Your task to perform on an android device: set the timer Image 0: 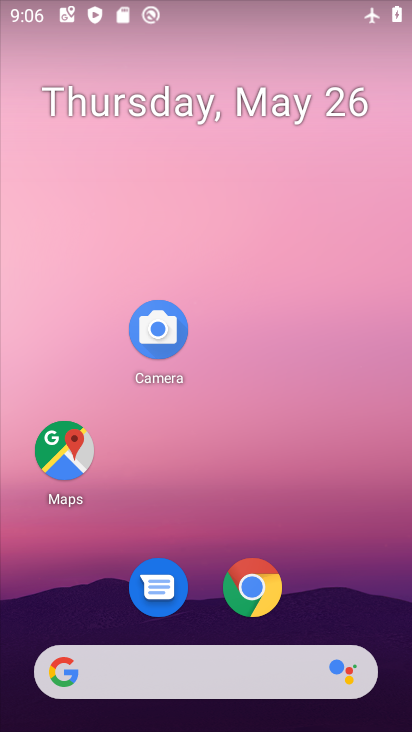
Step 0: drag from (195, 622) to (197, 230)
Your task to perform on an android device: set the timer Image 1: 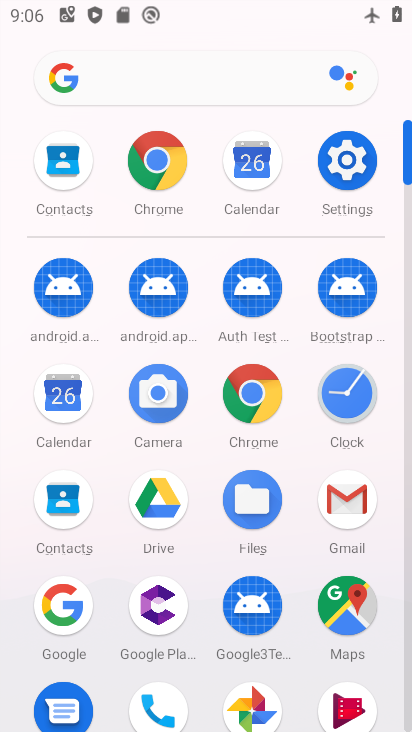
Step 1: click (340, 403)
Your task to perform on an android device: set the timer Image 2: 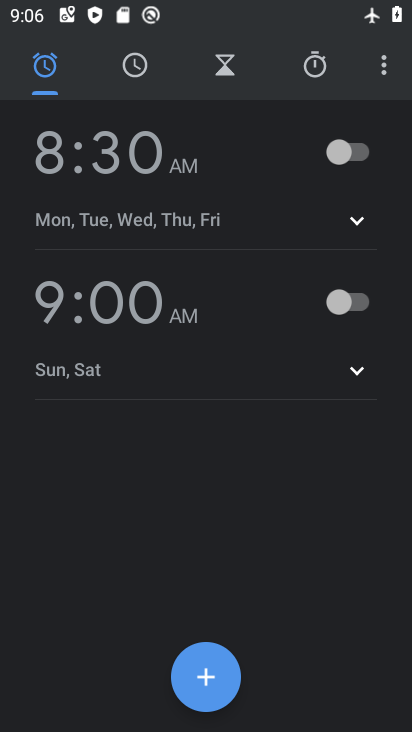
Step 2: click (233, 87)
Your task to perform on an android device: set the timer Image 3: 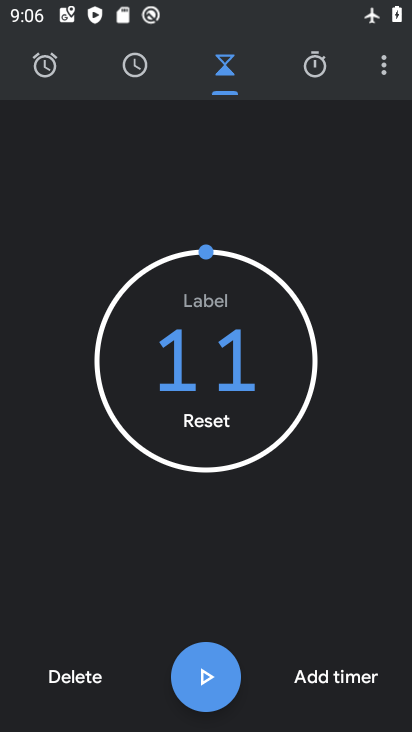
Step 3: click (208, 677)
Your task to perform on an android device: set the timer Image 4: 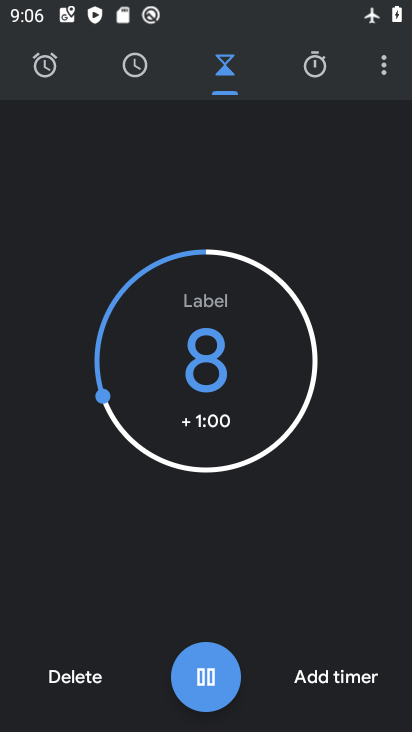
Step 4: task complete